Your task to perform on an android device: add a contact in the contacts app Image 0: 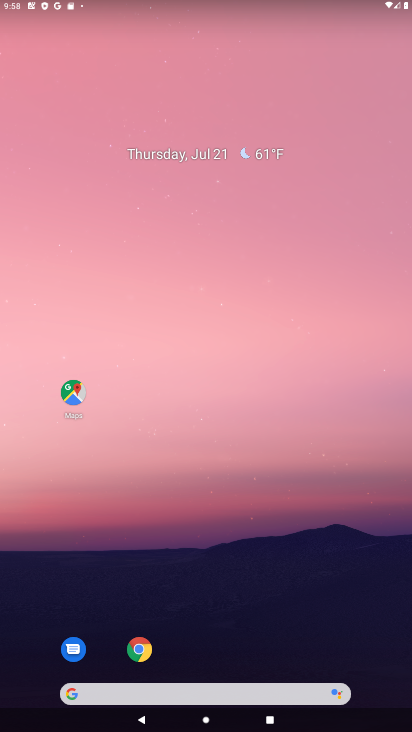
Step 0: drag from (199, 691) to (249, 181)
Your task to perform on an android device: add a contact in the contacts app Image 1: 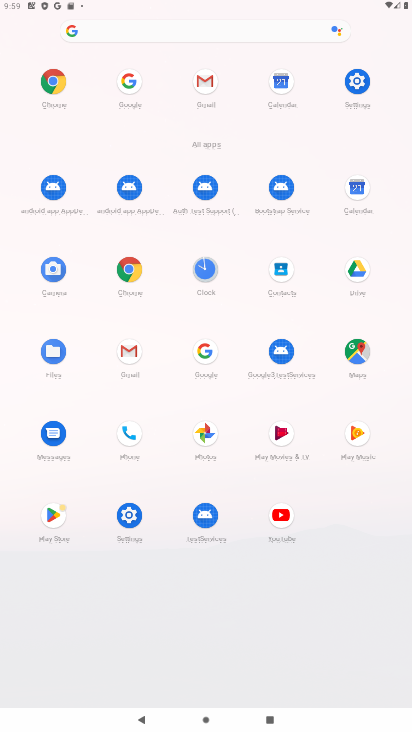
Step 1: click (280, 271)
Your task to perform on an android device: add a contact in the contacts app Image 2: 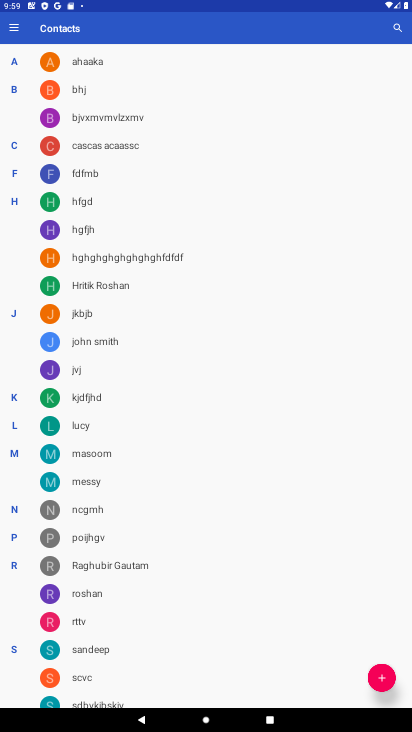
Step 2: click (379, 678)
Your task to perform on an android device: add a contact in the contacts app Image 3: 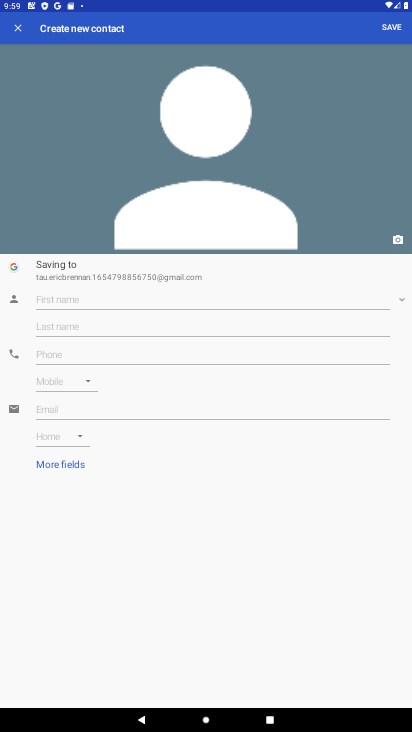
Step 3: click (215, 295)
Your task to perform on an android device: add a contact in the contacts app Image 4: 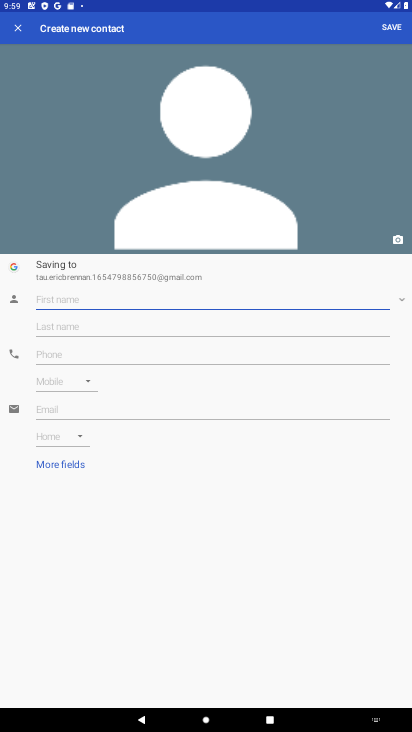
Step 4: type "Rameshwar"
Your task to perform on an android device: add a contact in the contacts app Image 5: 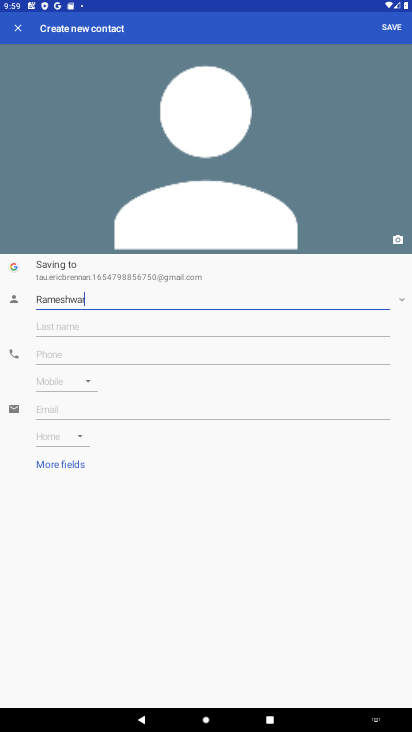
Step 5: click (96, 330)
Your task to perform on an android device: add a contact in the contacts app Image 6: 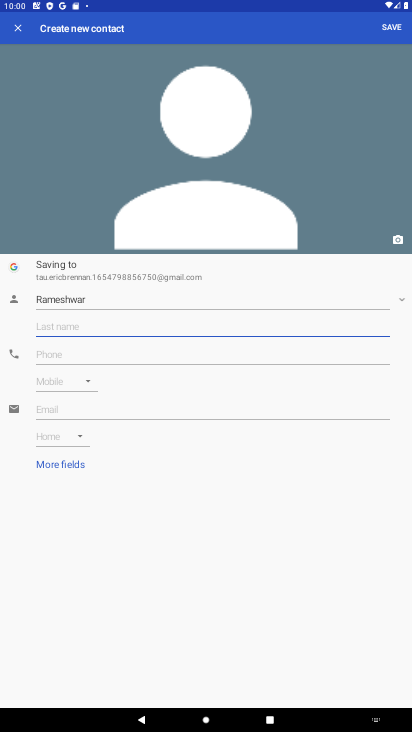
Step 6: type "Thapa"
Your task to perform on an android device: add a contact in the contacts app Image 7: 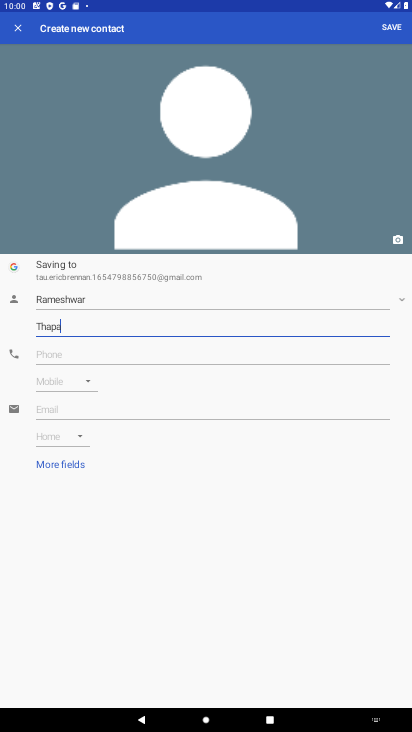
Step 7: click (170, 356)
Your task to perform on an android device: add a contact in the contacts app Image 8: 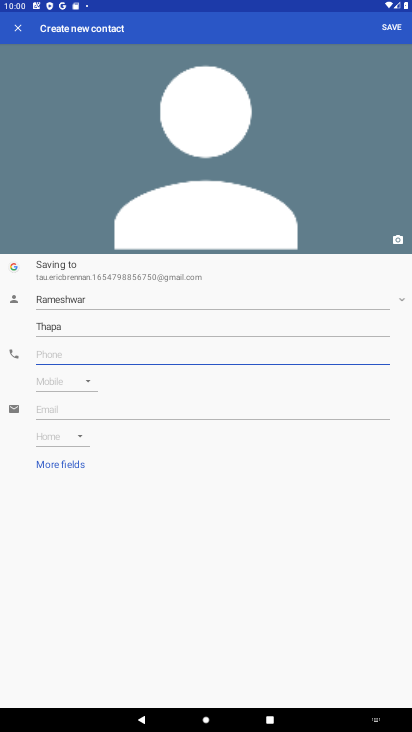
Step 8: type "0998877665544"
Your task to perform on an android device: add a contact in the contacts app Image 9: 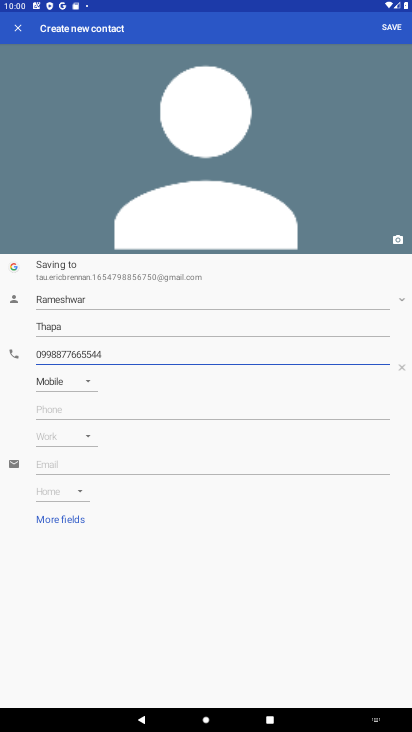
Step 9: click (392, 27)
Your task to perform on an android device: add a contact in the contacts app Image 10: 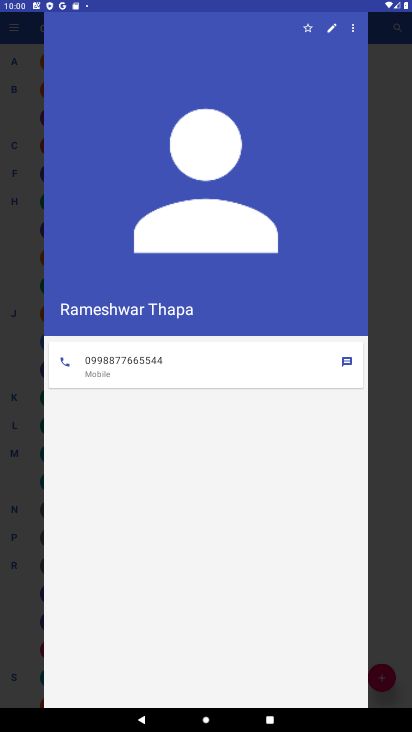
Step 10: task complete